Your task to perform on an android device: Look up the best rated kitchen knives on Amazon. Image 0: 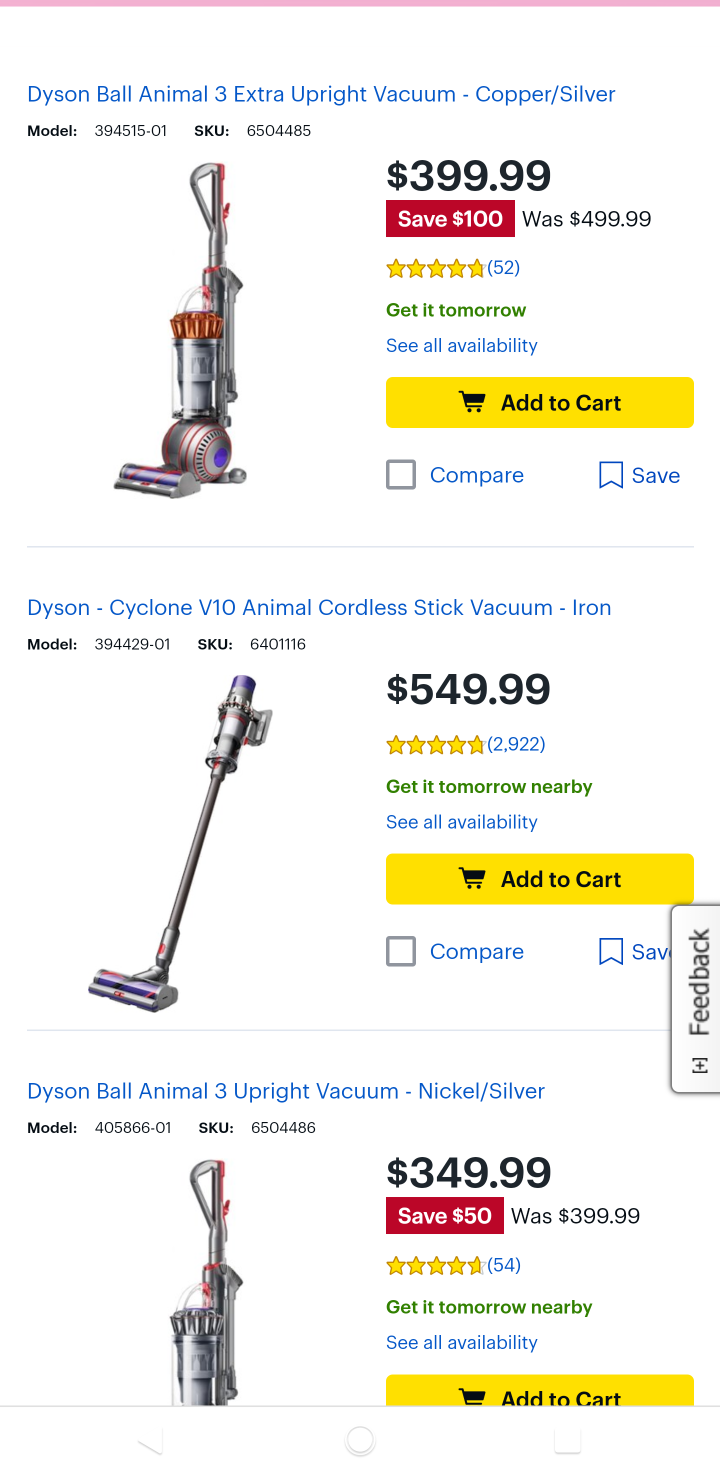
Step 0: press home button
Your task to perform on an android device: Look up the best rated kitchen knives on Amazon. Image 1: 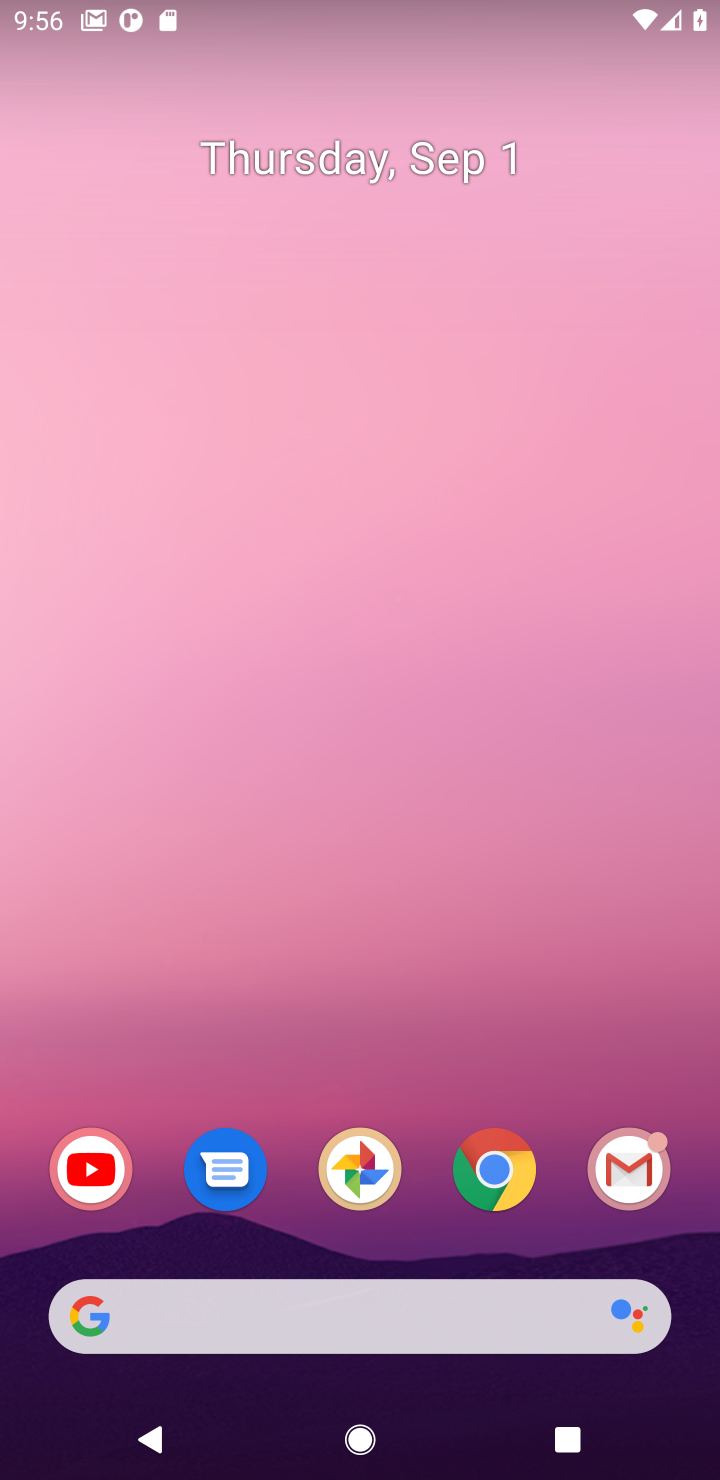
Step 1: drag from (425, 1143) to (450, 30)
Your task to perform on an android device: Look up the best rated kitchen knives on Amazon. Image 2: 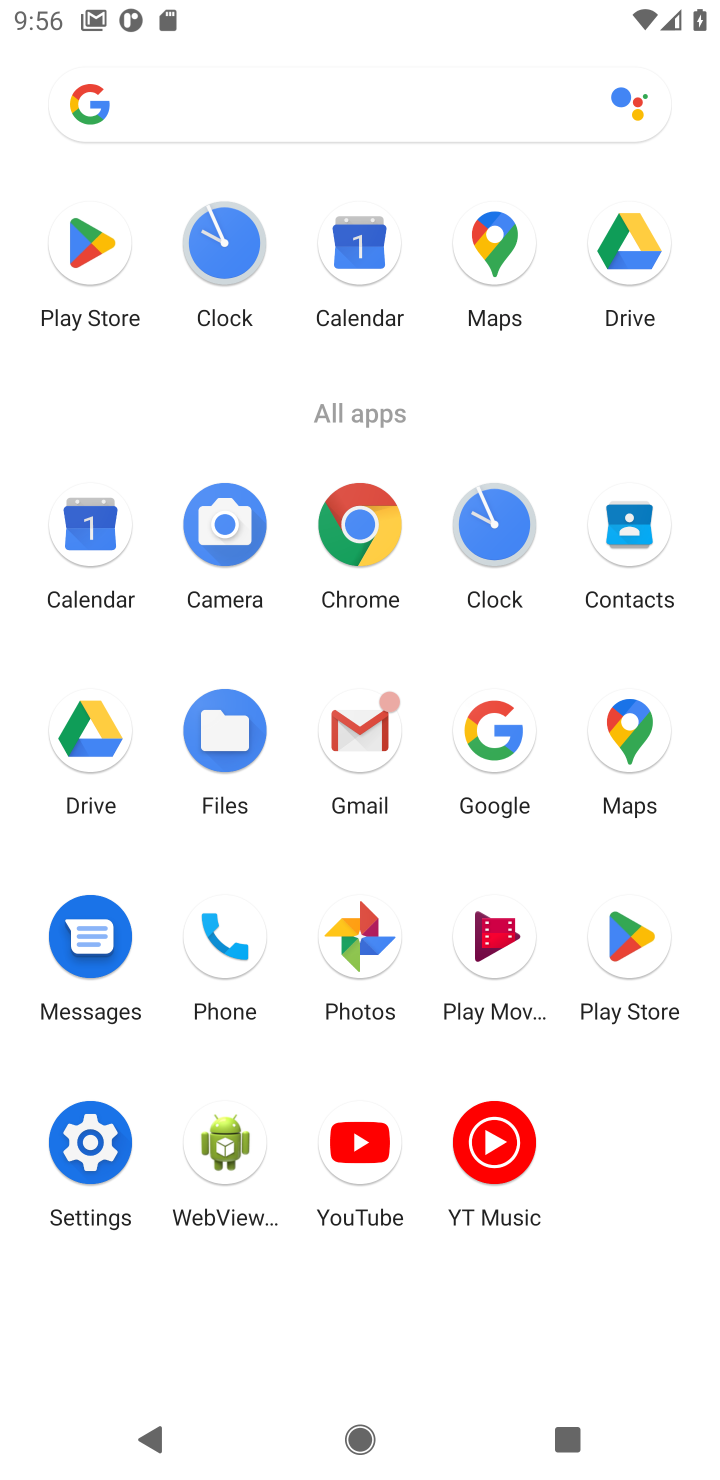
Step 2: click (358, 523)
Your task to perform on an android device: Look up the best rated kitchen knives on Amazon. Image 3: 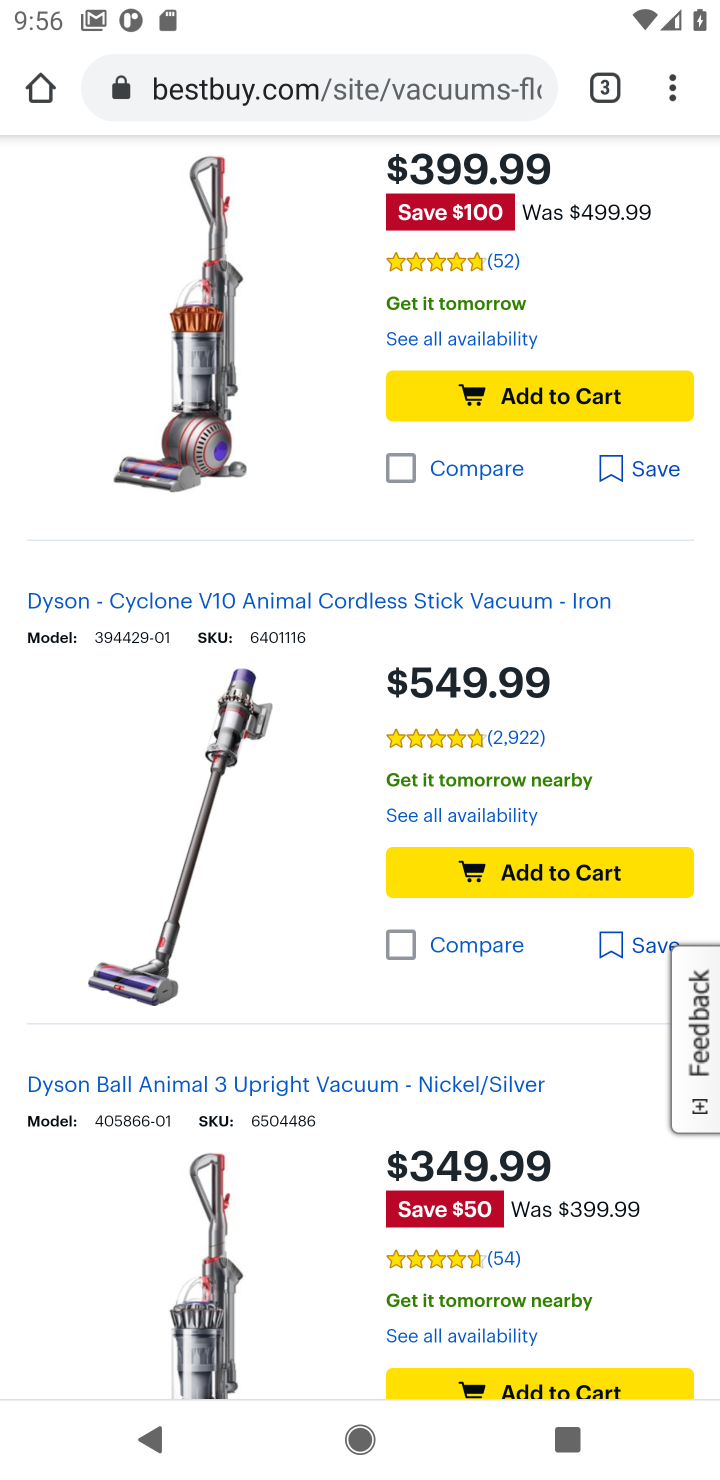
Step 3: click (240, 90)
Your task to perform on an android device: Look up the best rated kitchen knives on Amazon. Image 4: 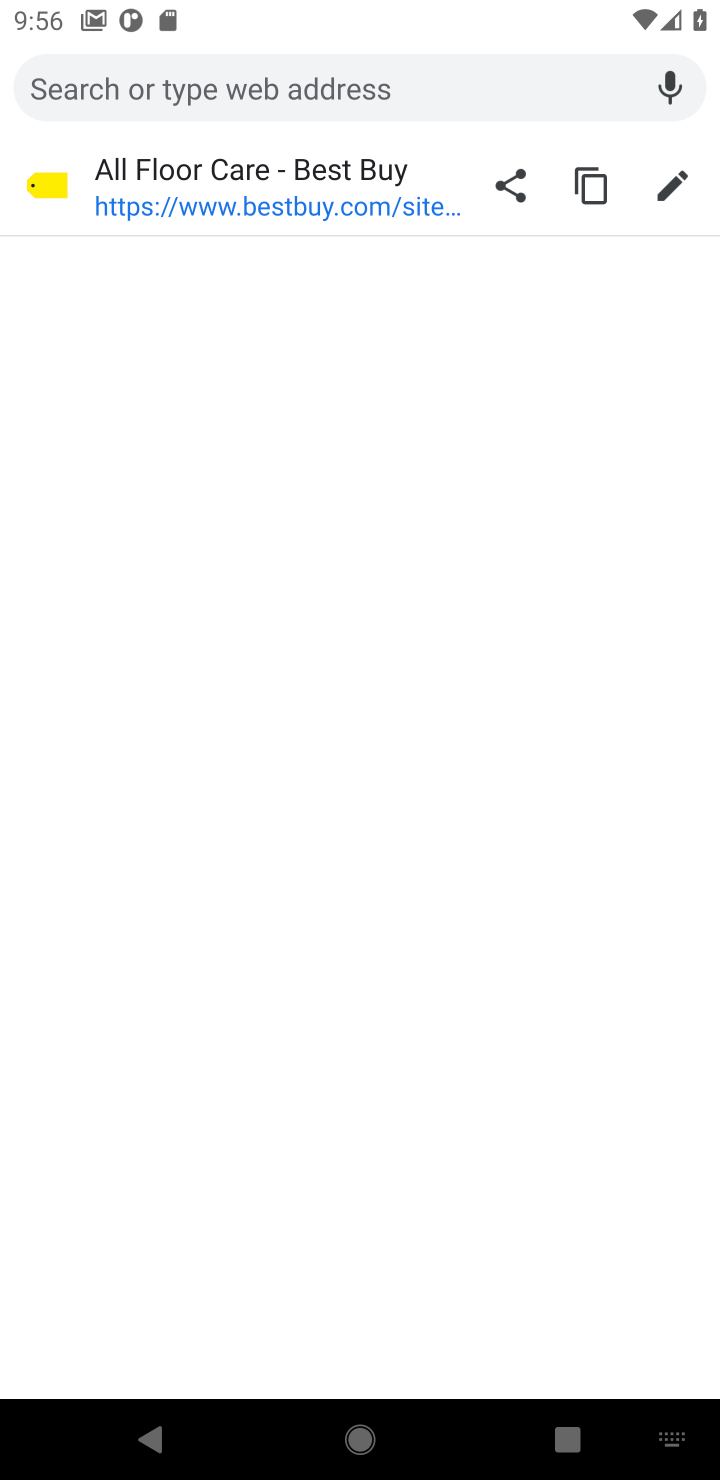
Step 4: type "best rated kitchen knives on Amazon"
Your task to perform on an android device: Look up the best rated kitchen knives on Amazon. Image 5: 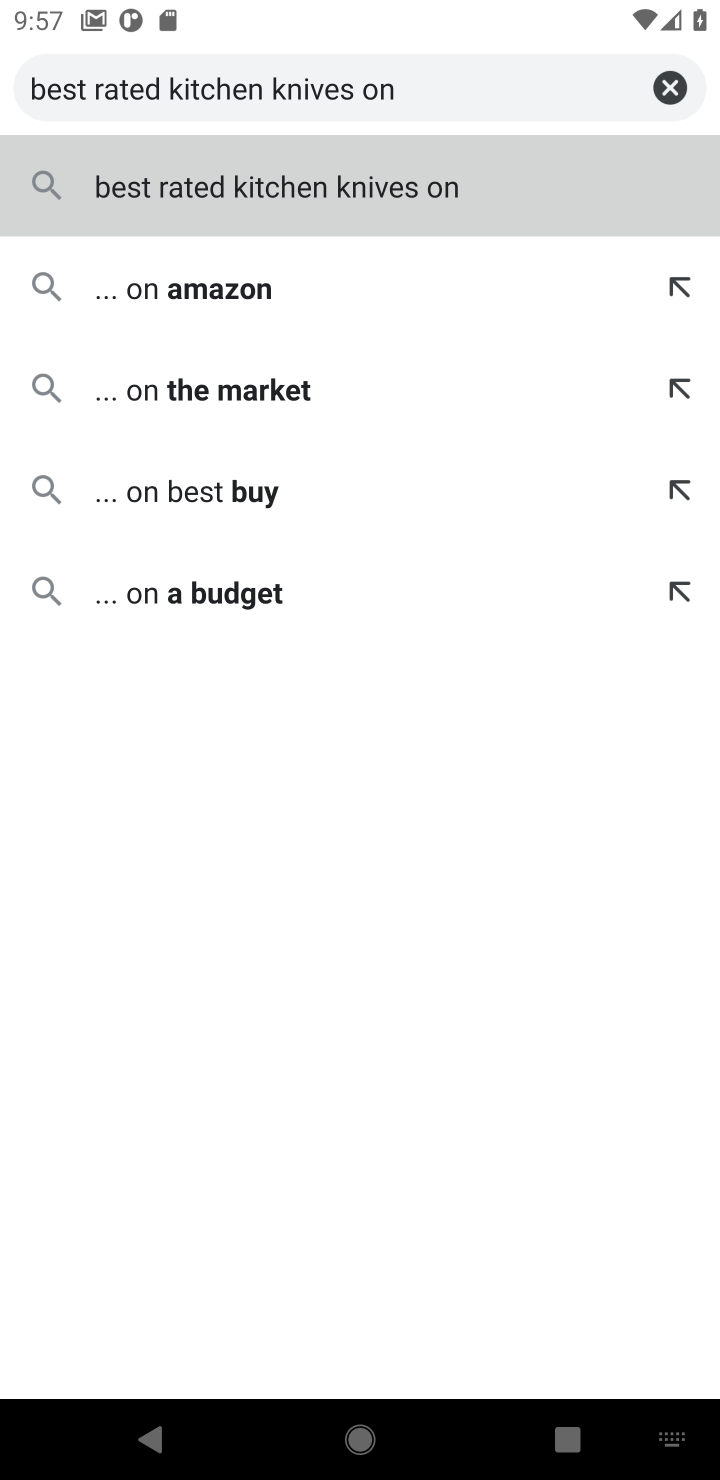
Step 5: type " Amazon"
Your task to perform on an android device: Look up the best rated kitchen knives on Amazon. Image 6: 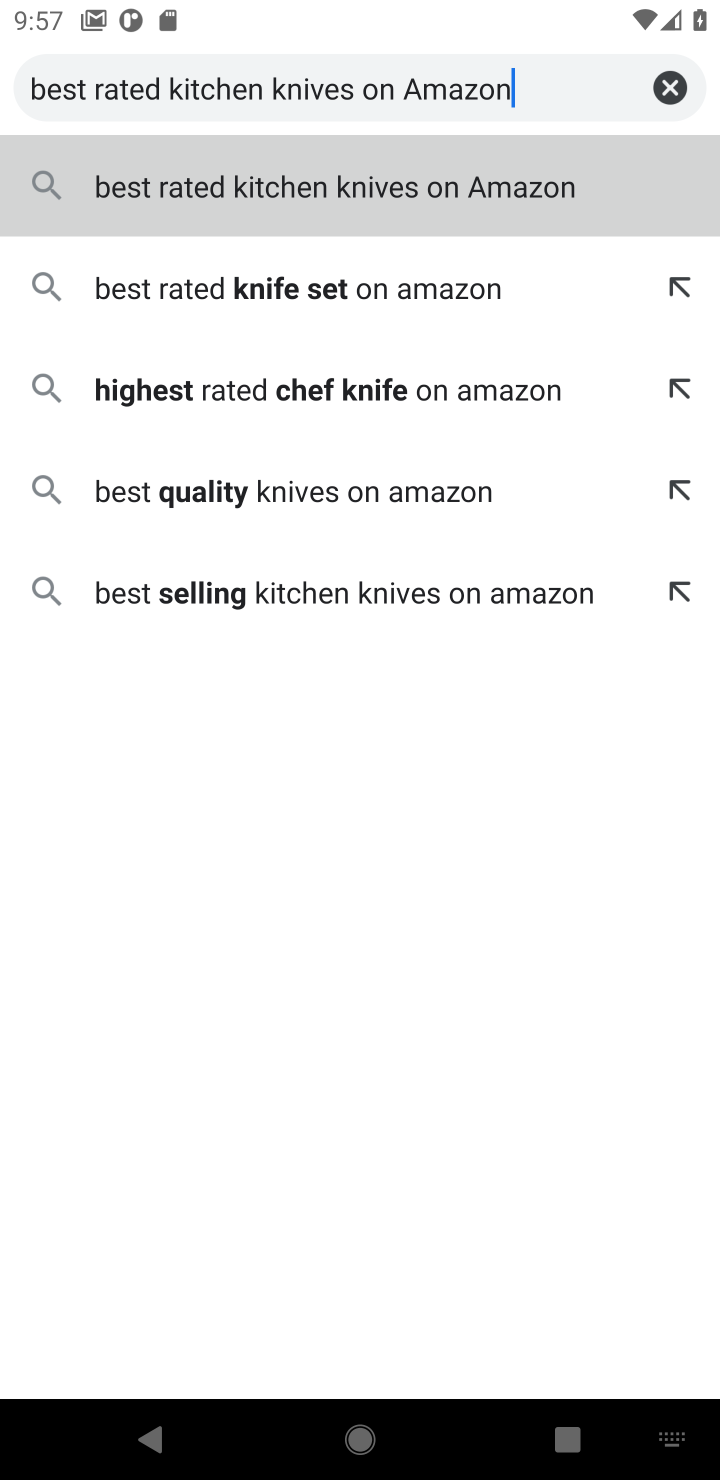
Step 6: click (321, 172)
Your task to perform on an android device: Look up the best rated kitchen knives on Amazon. Image 7: 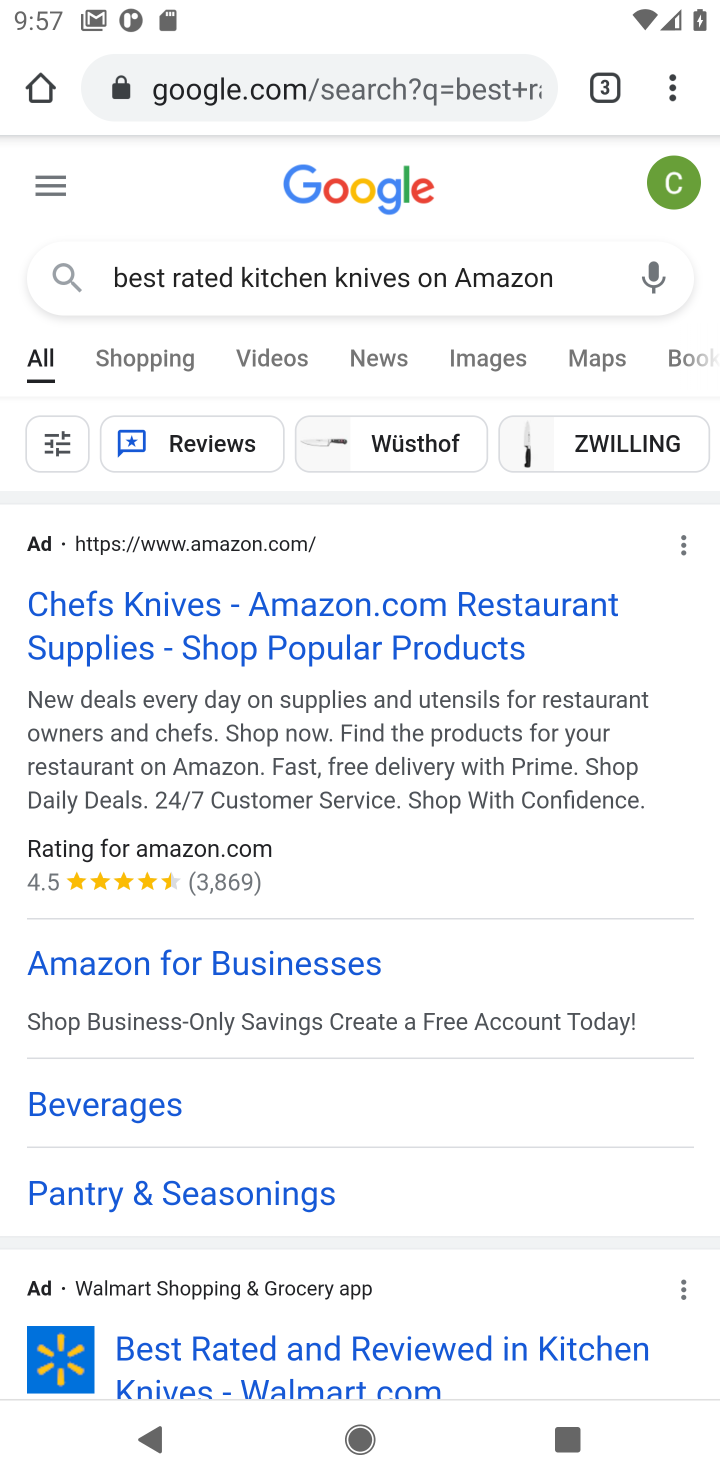
Step 7: drag from (373, 1239) to (358, 518)
Your task to perform on an android device: Look up the best rated kitchen knives on Amazon. Image 8: 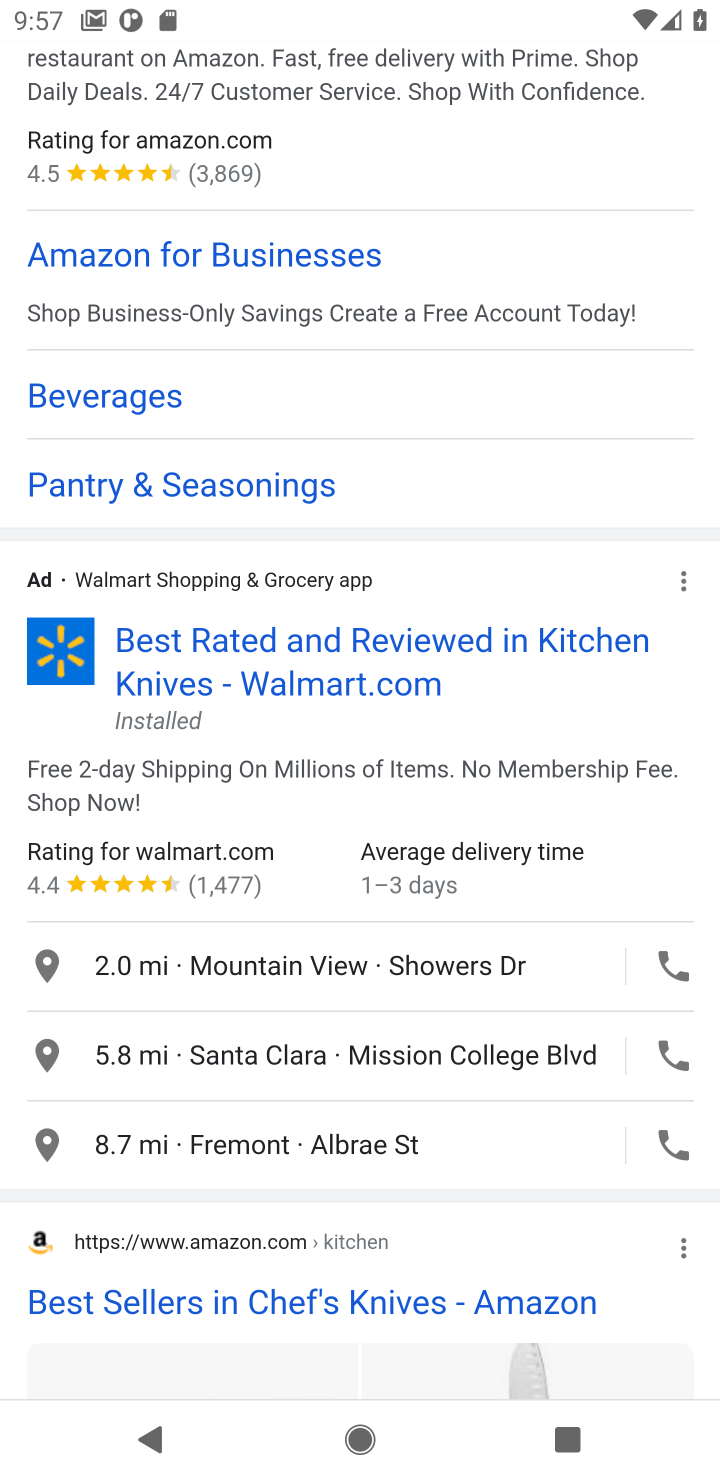
Step 8: click (361, 1304)
Your task to perform on an android device: Look up the best rated kitchen knives on Amazon. Image 9: 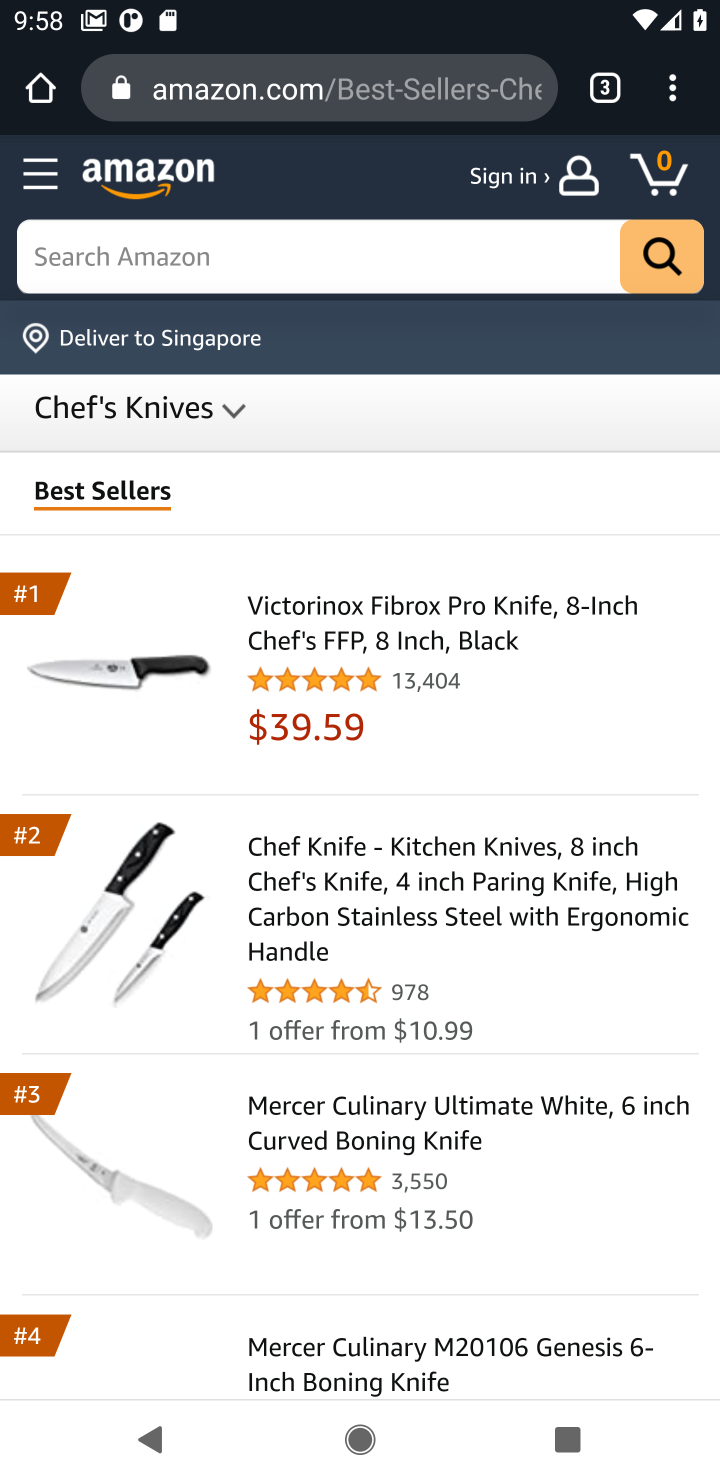
Step 9: drag from (206, 1187) to (224, 172)
Your task to perform on an android device: Look up the best rated kitchen knives on Amazon. Image 10: 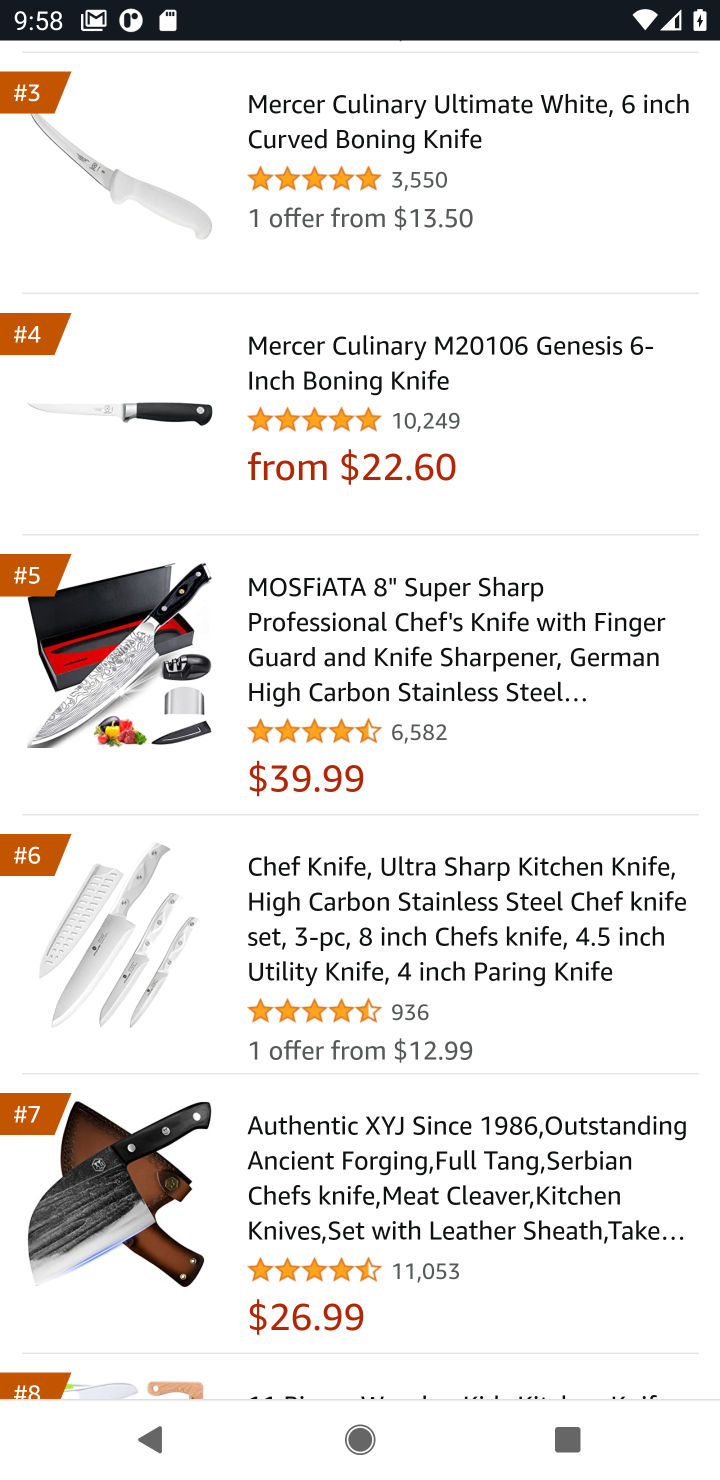
Step 10: click (240, 159)
Your task to perform on an android device: Look up the best rated kitchen knives on Amazon. Image 11: 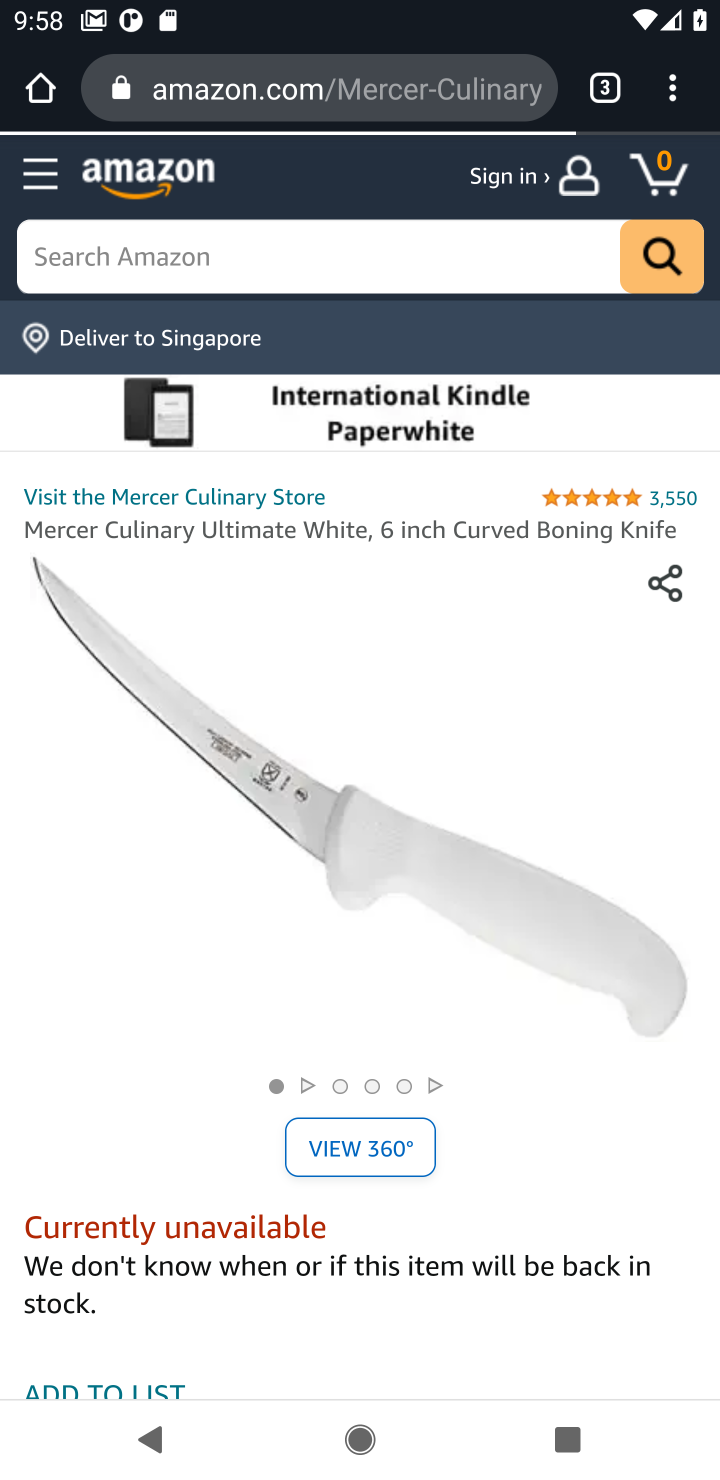
Step 11: drag from (363, 1264) to (331, 486)
Your task to perform on an android device: Look up the best rated kitchen knives on Amazon. Image 12: 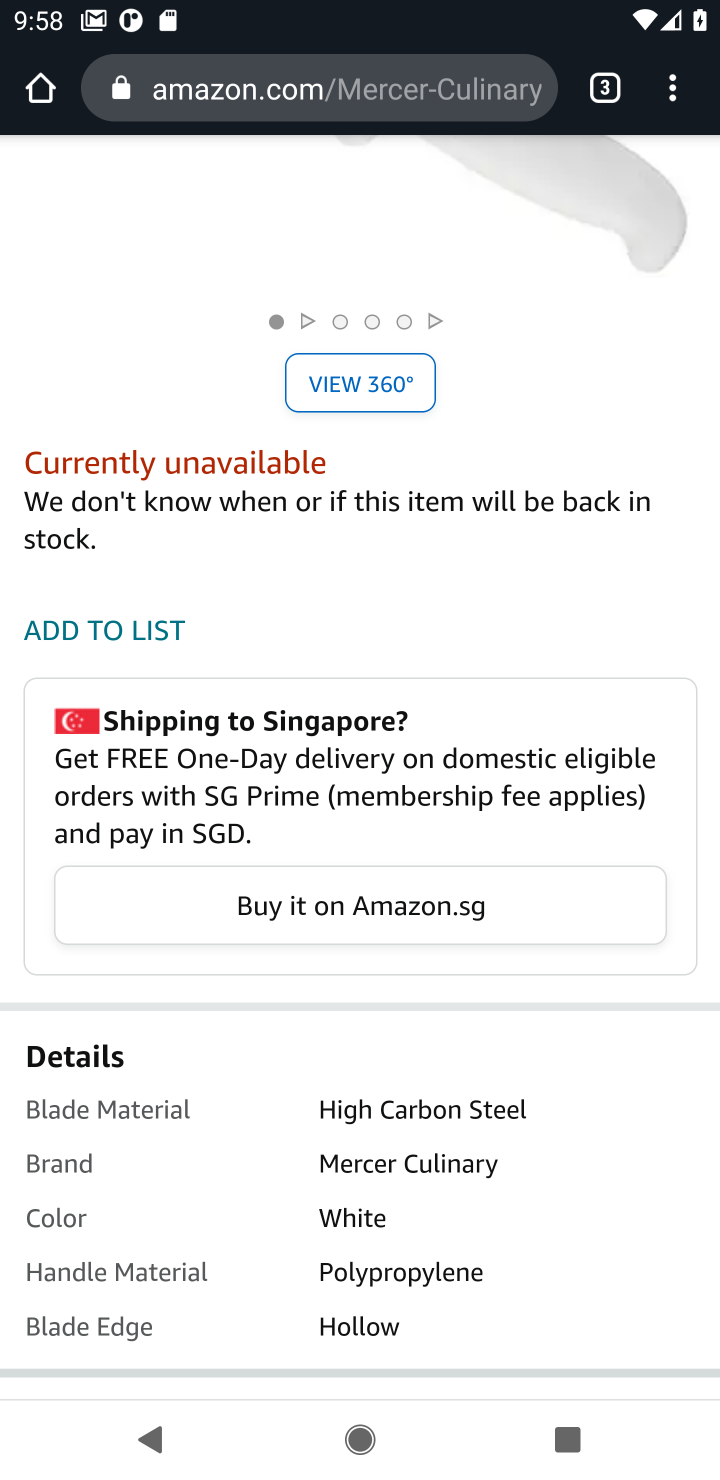
Step 12: drag from (357, 1112) to (333, 290)
Your task to perform on an android device: Look up the best rated kitchen knives on Amazon. Image 13: 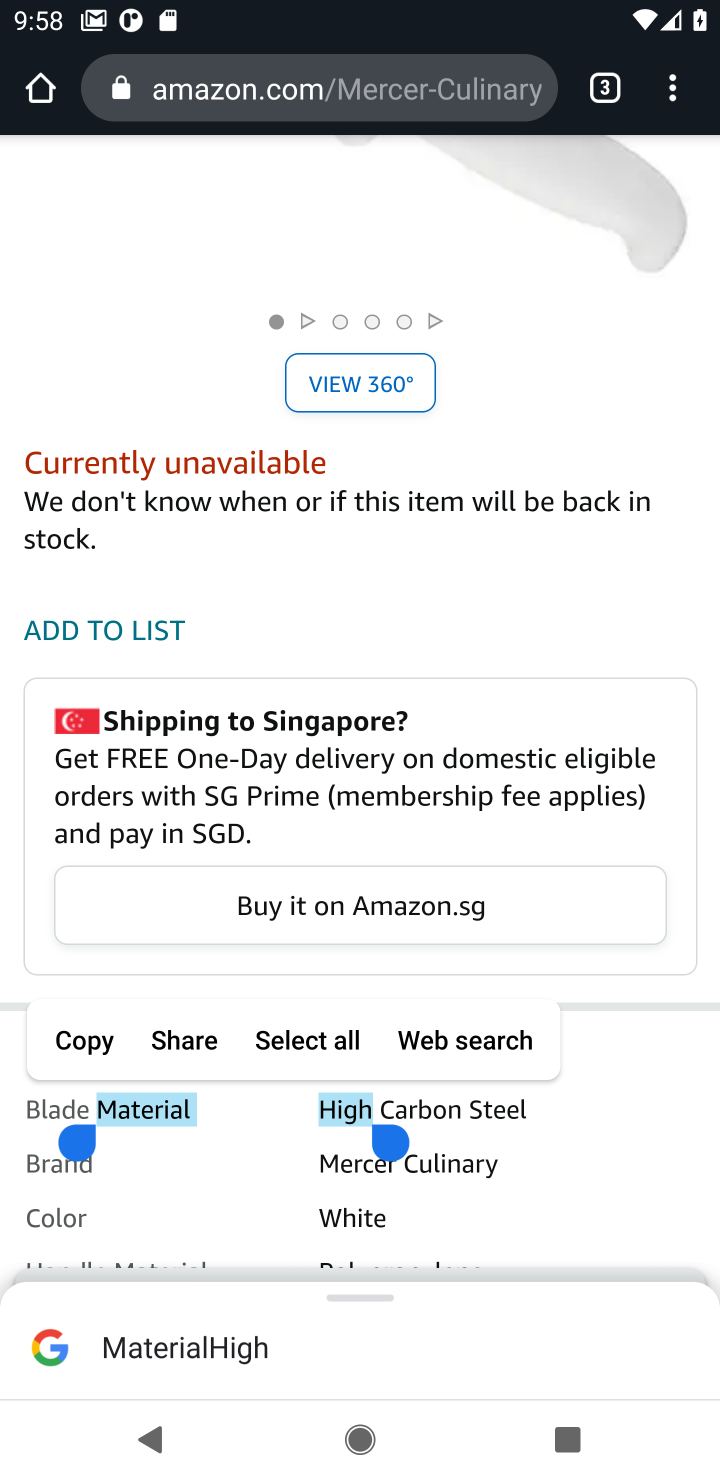
Step 13: click (590, 1180)
Your task to perform on an android device: Look up the best rated kitchen knives on Amazon. Image 14: 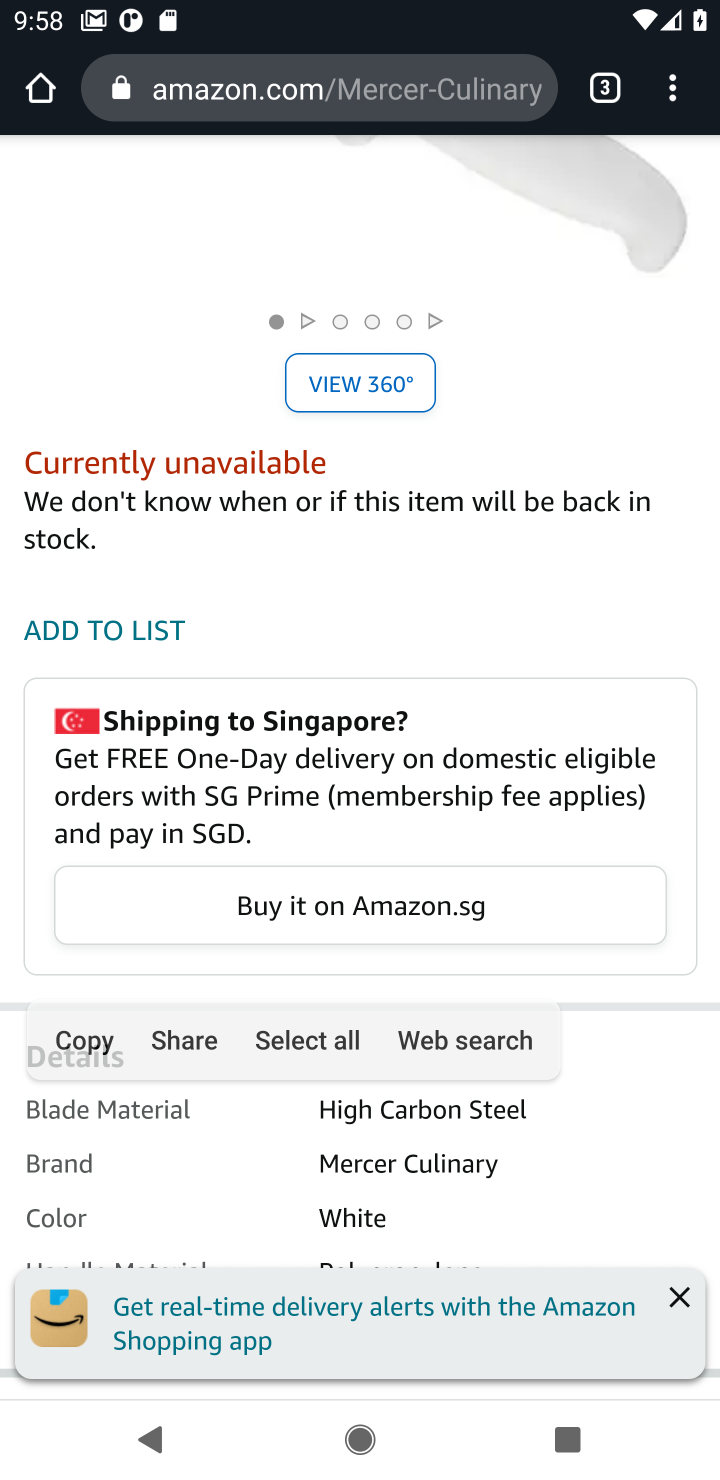
Step 14: drag from (458, 1234) to (455, 136)
Your task to perform on an android device: Look up the best rated kitchen knives on Amazon. Image 15: 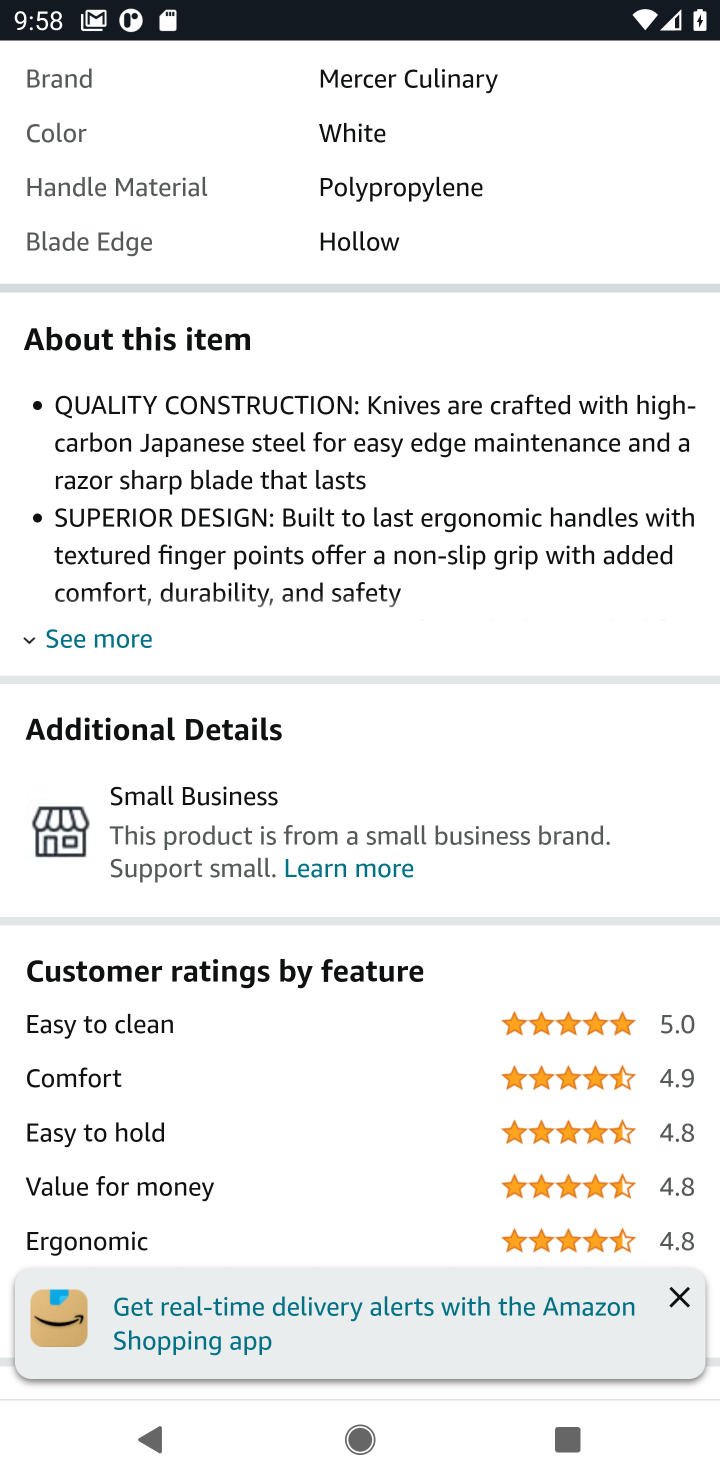
Step 15: drag from (353, 1169) to (416, 54)
Your task to perform on an android device: Look up the best rated kitchen knives on Amazon. Image 16: 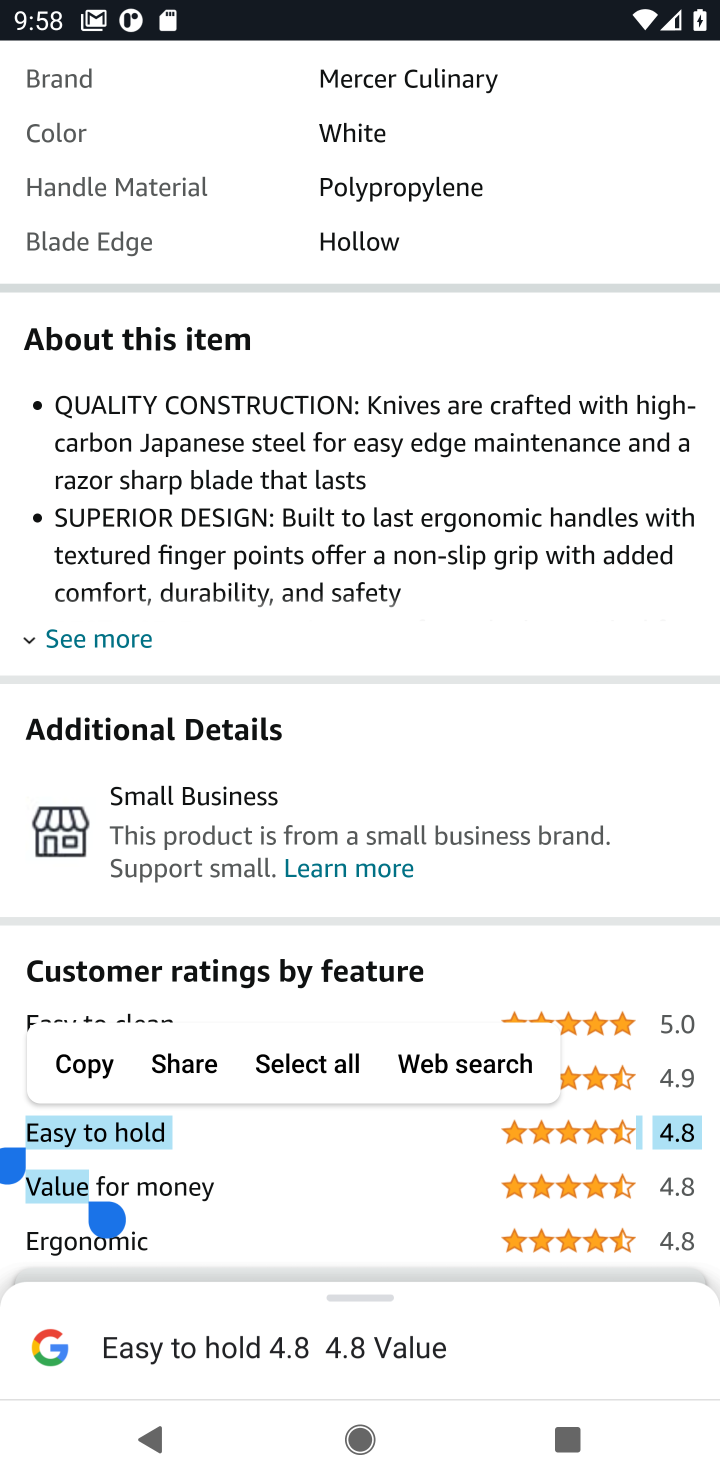
Step 16: click (399, 708)
Your task to perform on an android device: Look up the best rated kitchen knives on Amazon. Image 17: 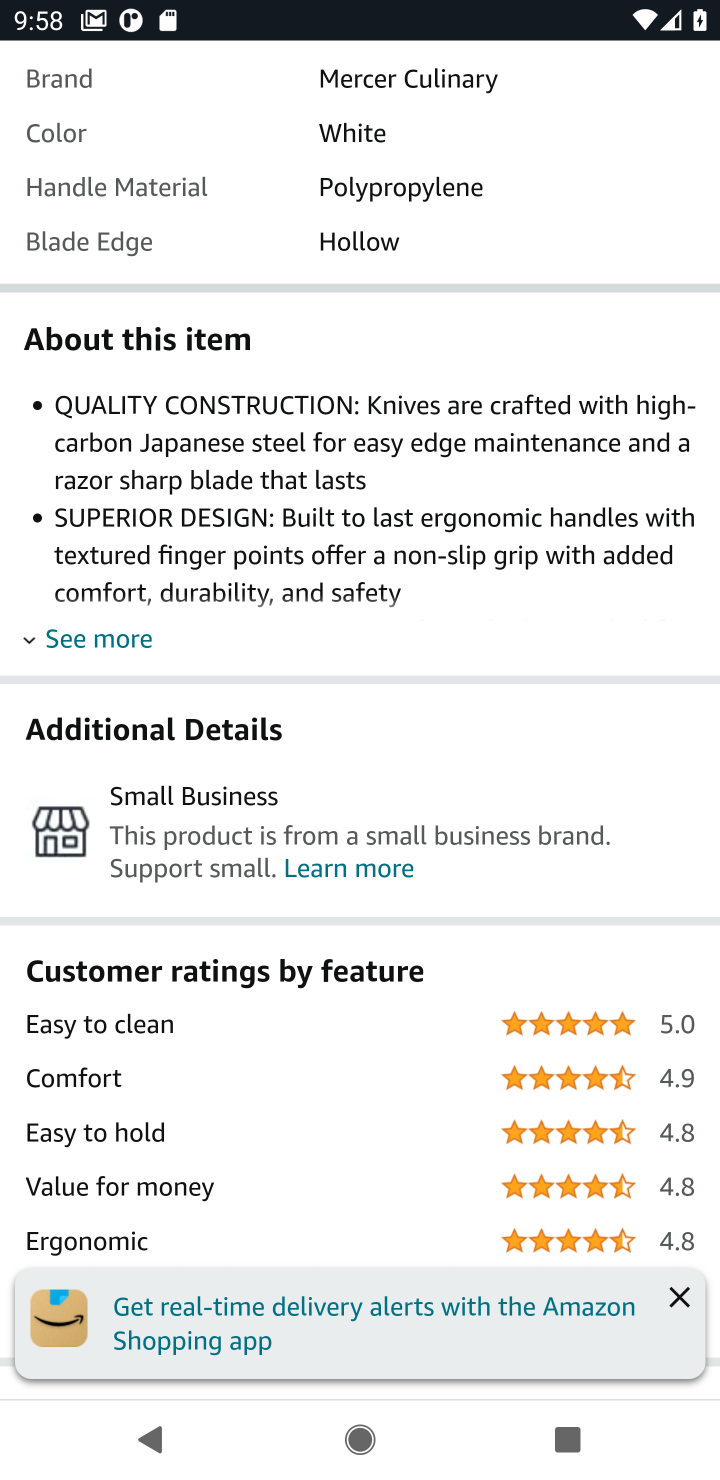
Step 17: task complete